Your task to perform on an android device: Do I have any events today? Image 0: 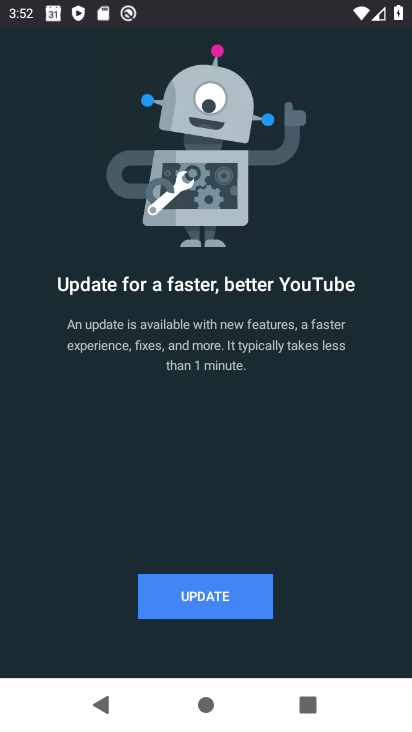
Step 0: press home button
Your task to perform on an android device: Do I have any events today? Image 1: 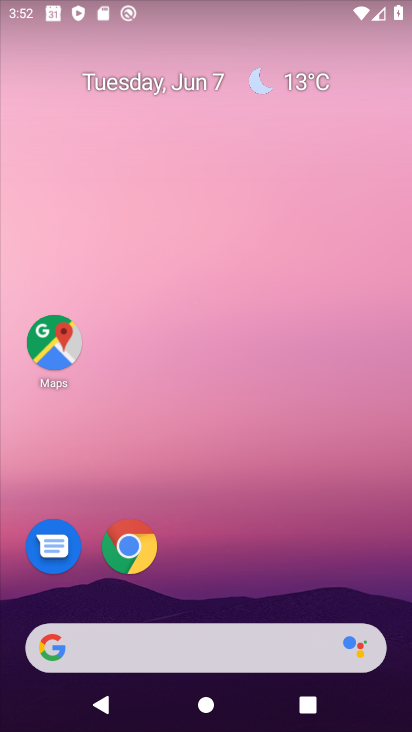
Step 1: click (165, 92)
Your task to perform on an android device: Do I have any events today? Image 2: 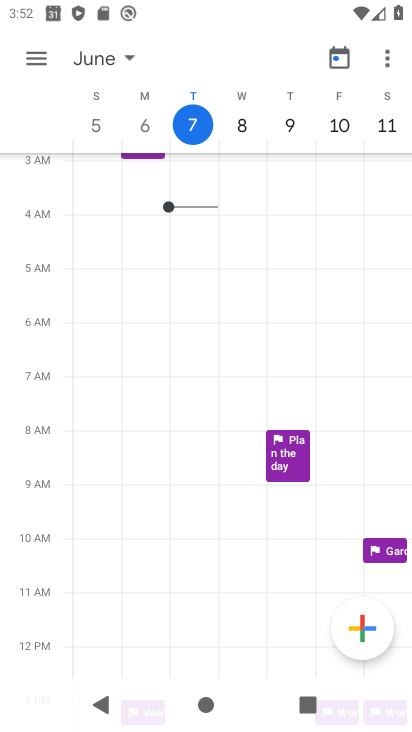
Step 2: click (110, 54)
Your task to perform on an android device: Do I have any events today? Image 3: 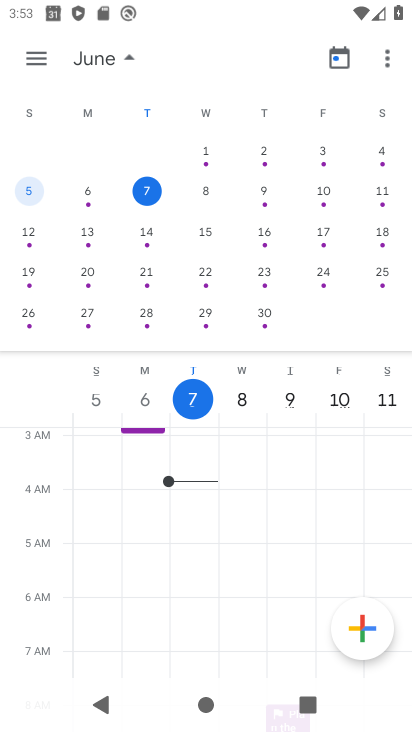
Step 3: task complete